Your task to perform on an android device: open a new tab in the chrome app Image 0: 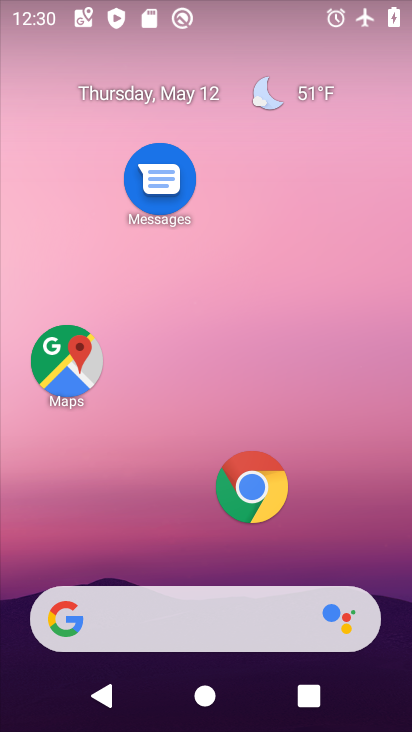
Step 0: click (261, 473)
Your task to perform on an android device: open a new tab in the chrome app Image 1: 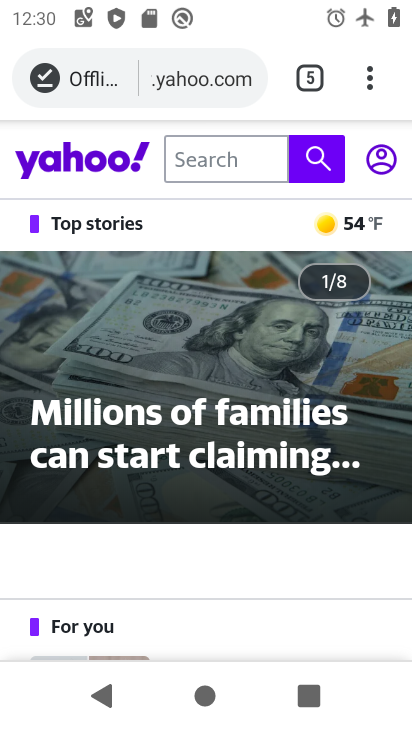
Step 1: click (368, 74)
Your task to perform on an android device: open a new tab in the chrome app Image 2: 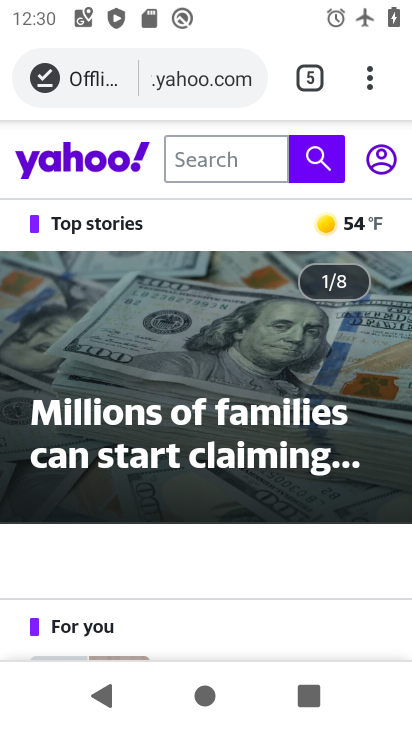
Step 2: click (324, 76)
Your task to perform on an android device: open a new tab in the chrome app Image 3: 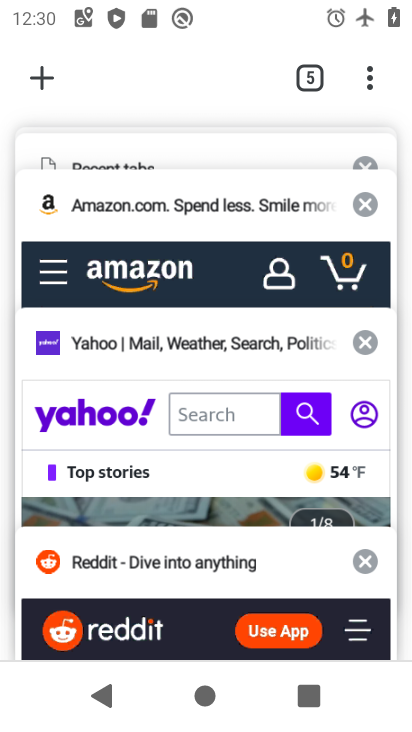
Step 3: click (50, 83)
Your task to perform on an android device: open a new tab in the chrome app Image 4: 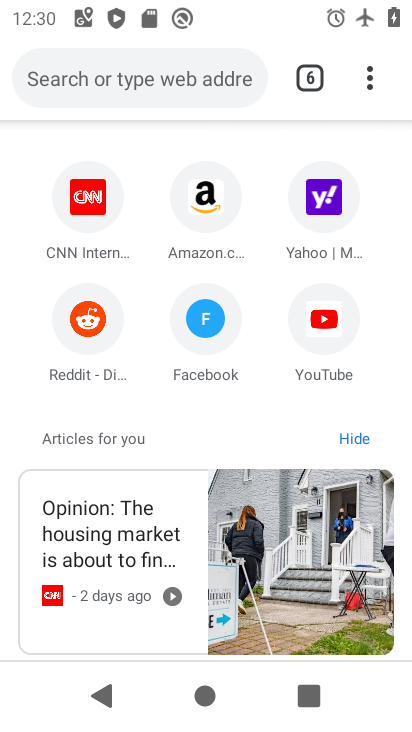
Step 4: task complete